Your task to perform on an android device: Open my contact list Image 0: 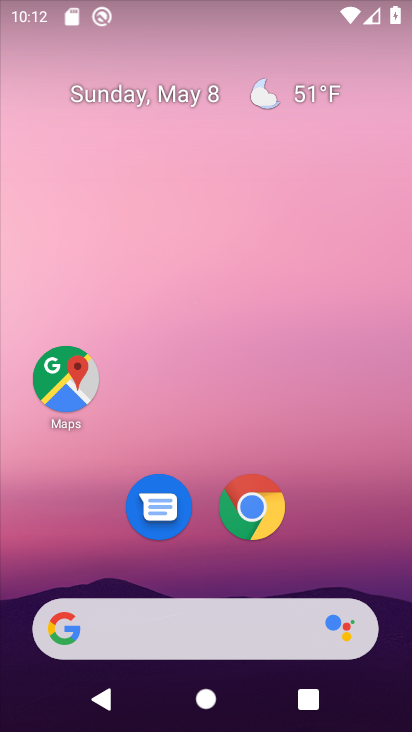
Step 0: drag from (198, 570) to (204, 31)
Your task to perform on an android device: Open my contact list Image 1: 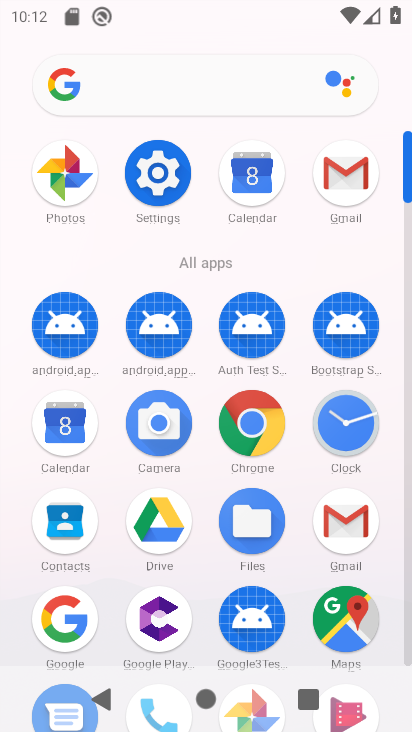
Step 1: click (62, 518)
Your task to perform on an android device: Open my contact list Image 2: 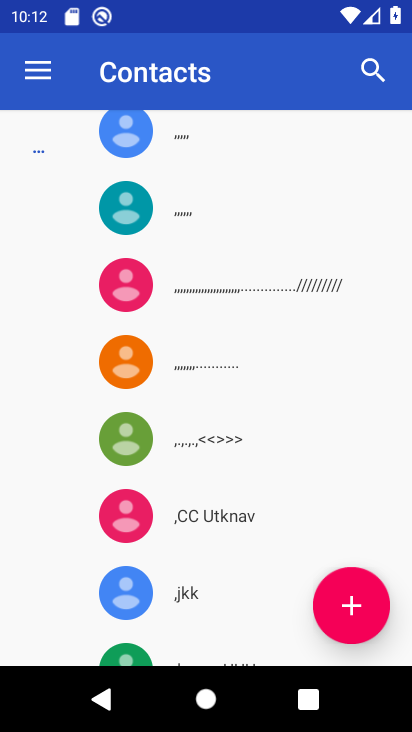
Step 2: task complete